Your task to perform on an android device: change the clock display to show seconds Image 0: 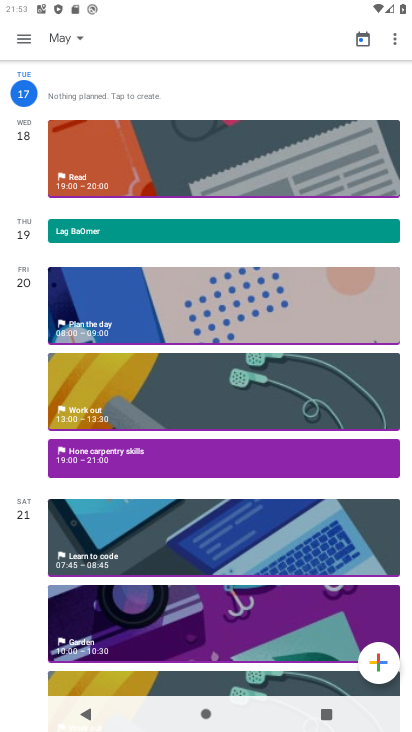
Step 0: press home button
Your task to perform on an android device: change the clock display to show seconds Image 1: 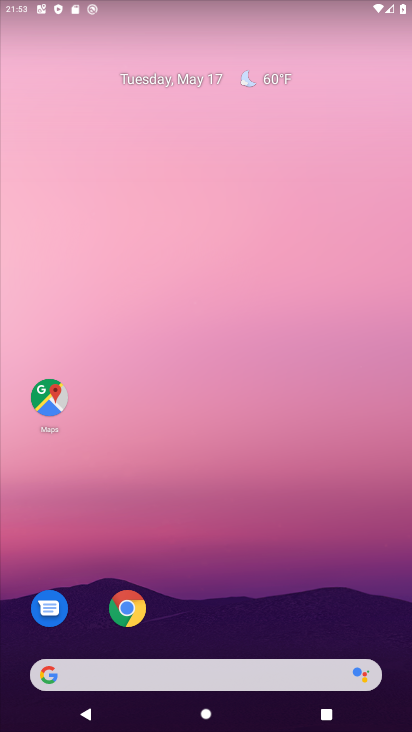
Step 1: drag from (263, 600) to (203, 146)
Your task to perform on an android device: change the clock display to show seconds Image 2: 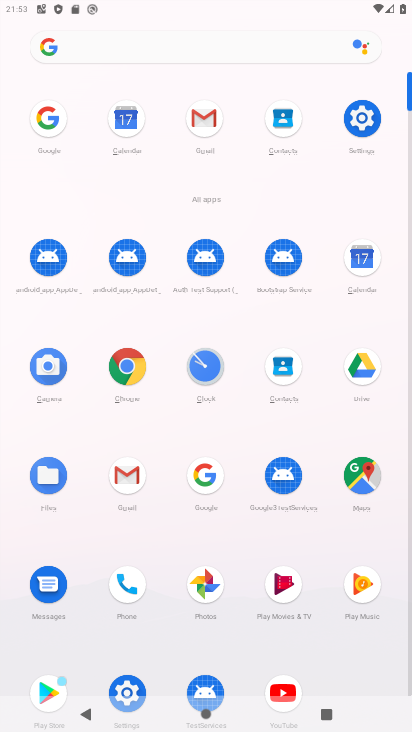
Step 2: click (201, 359)
Your task to perform on an android device: change the clock display to show seconds Image 3: 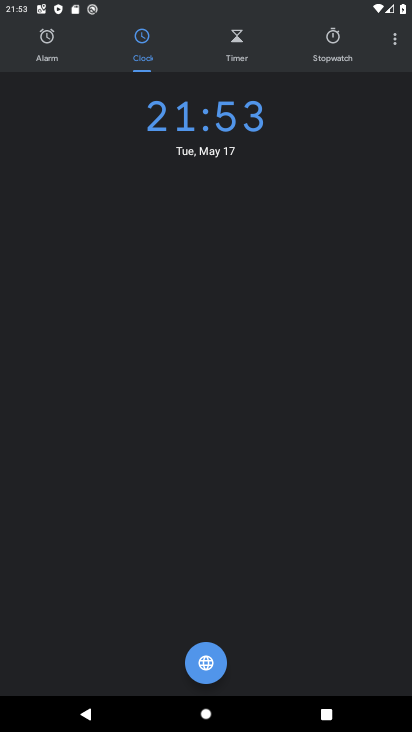
Step 3: click (392, 32)
Your task to perform on an android device: change the clock display to show seconds Image 4: 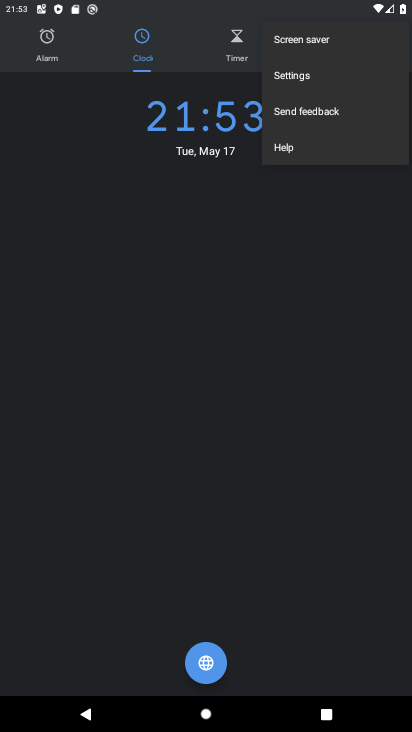
Step 4: click (299, 70)
Your task to perform on an android device: change the clock display to show seconds Image 5: 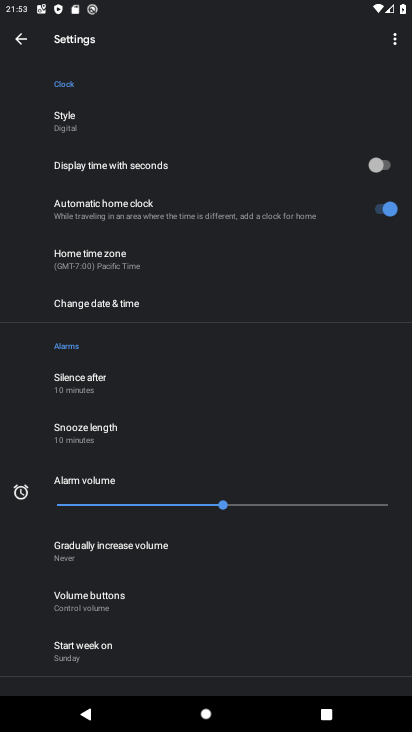
Step 5: click (130, 160)
Your task to perform on an android device: change the clock display to show seconds Image 6: 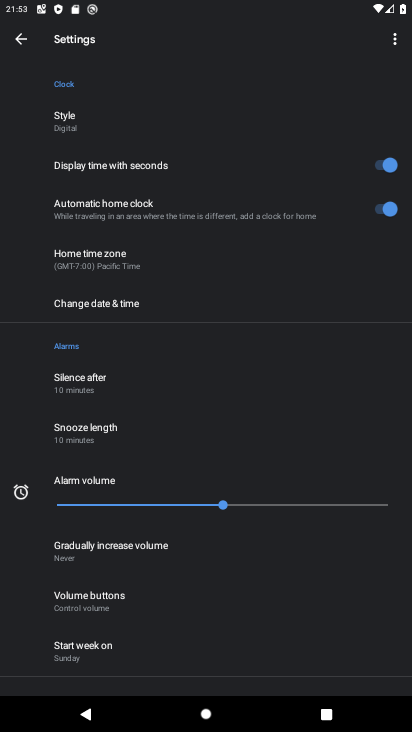
Step 6: task complete